Your task to perform on an android device: Open the phone app and click the voicemail tab. Image 0: 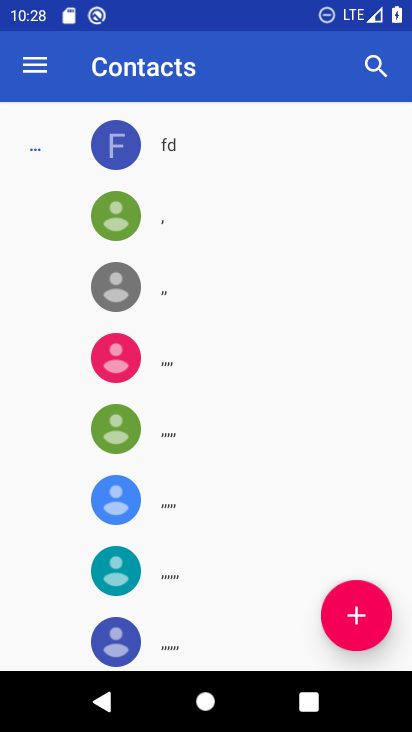
Step 0: press home button
Your task to perform on an android device: Open the phone app and click the voicemail tab. Image 1: 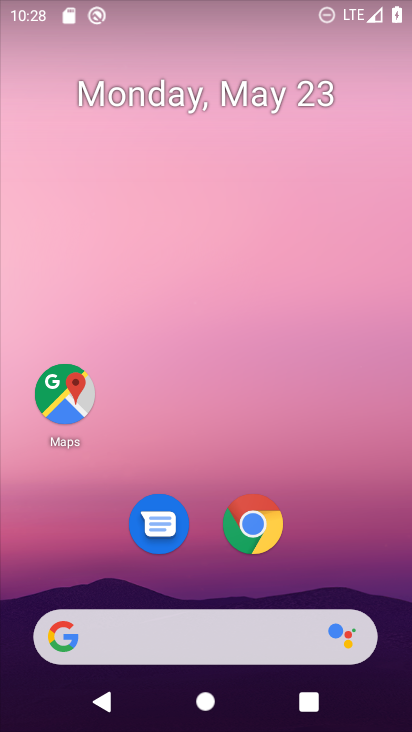
Step 1: drag from (186, 562) to (193, 5)
Your task to perform on an android device: Open the phone app and click the voicemail tab. Image 2: 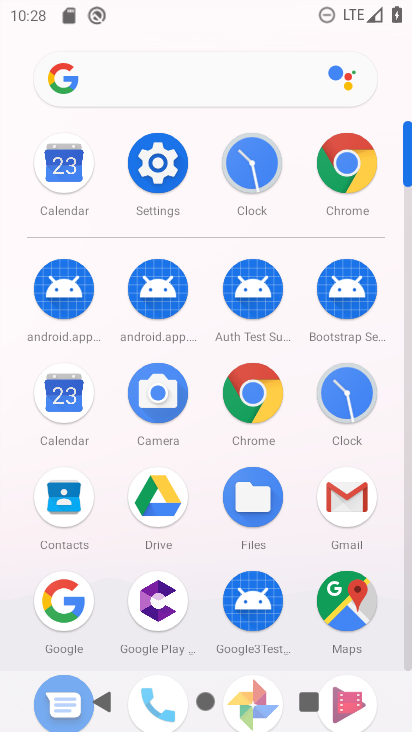
Step 2: drag from (193, 512) to (230, 243)
Your task to perform on an android device: Open the phone app and click the voicemail tab. Image 3: 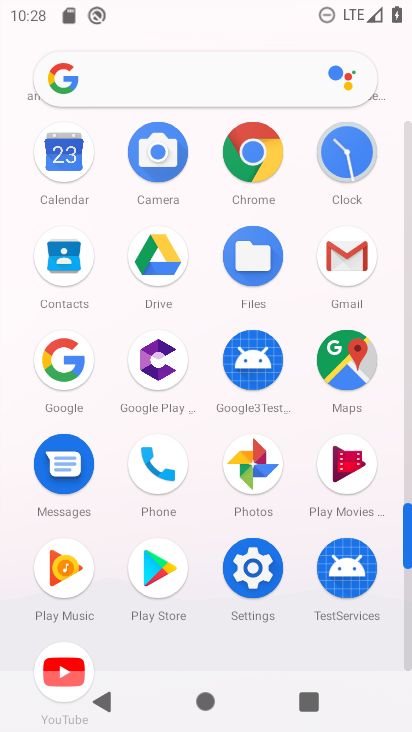
Step 3: click (166, 468)
Your task to perform on an android device: Open the phone app and click the voicemail tab. Image 4: 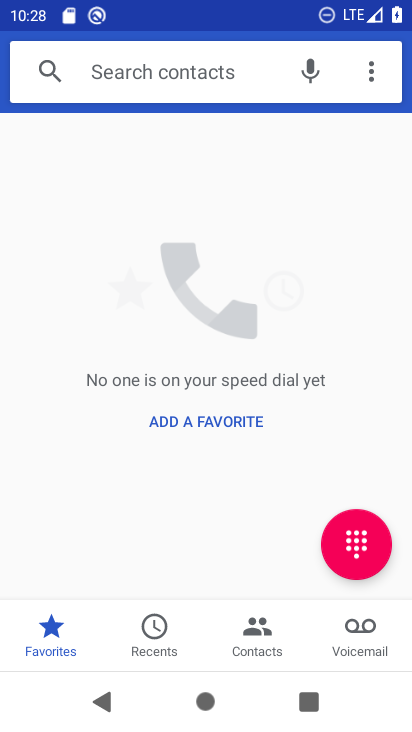
Step 4: click (373, 56)
Your task to perform on an android device: Open the phone app and click the voicemail tab. Image 5: 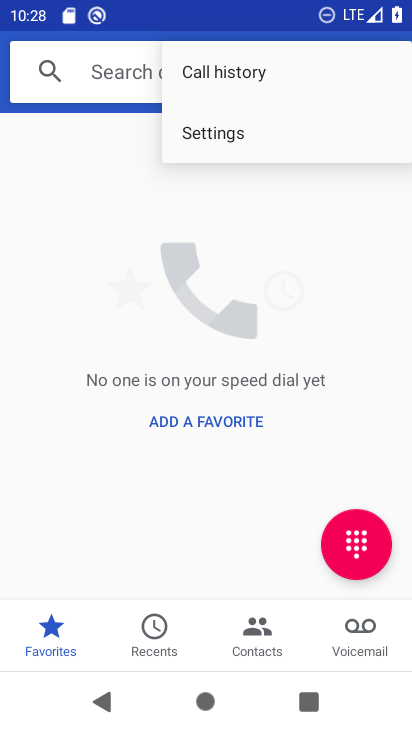
Step 5: click (303, 136)
Your task to perform on an android device: Open the phone app and click the voicemail tab. Image 6: 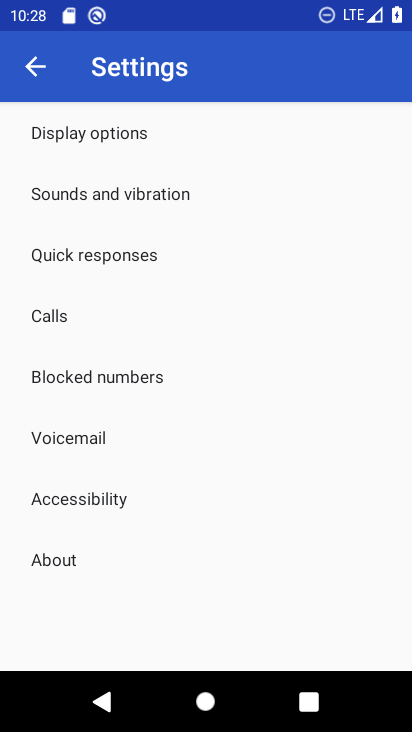
Step 6: click (38, 63)
Your task to perform on an android device: Open the phone app and click the voicemail tab. Image 7: 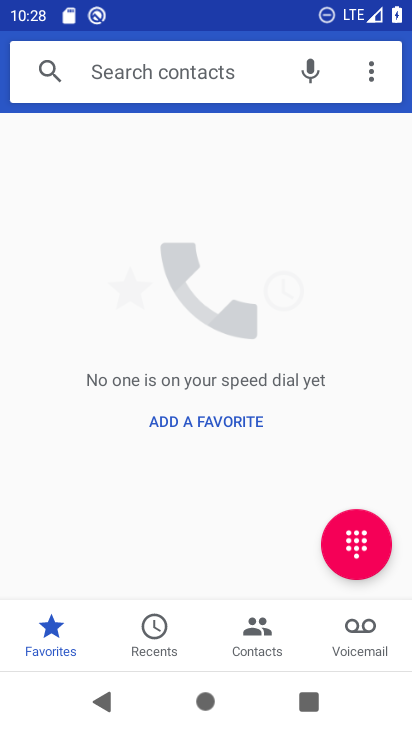
Step 7: click (352, 638)
Your task to perform on an android device: Open the phone app and click the voicemail tab. Image 8: 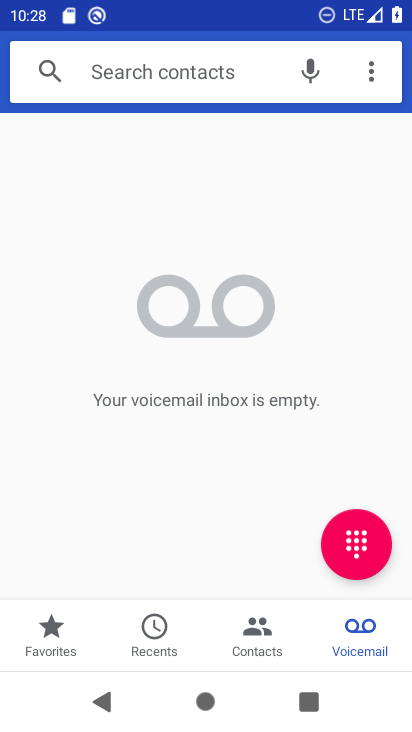
Step 8: task complete